Your task to perform on an android device: find which apps use the phone's location Image 0: 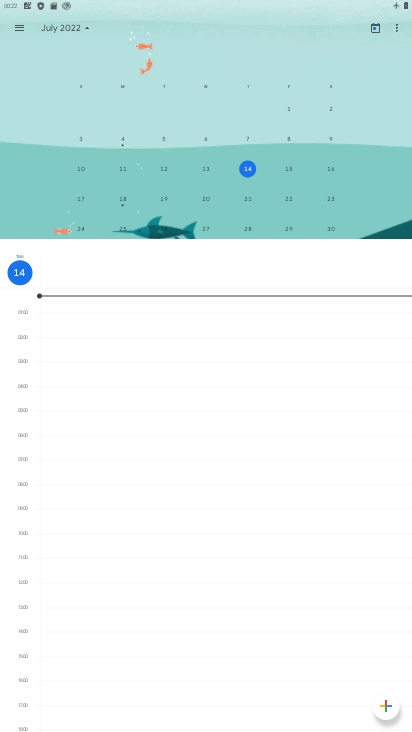
Step 0: press home button
Your task to perform on an android device: find which apps use the phone's location Image 1: 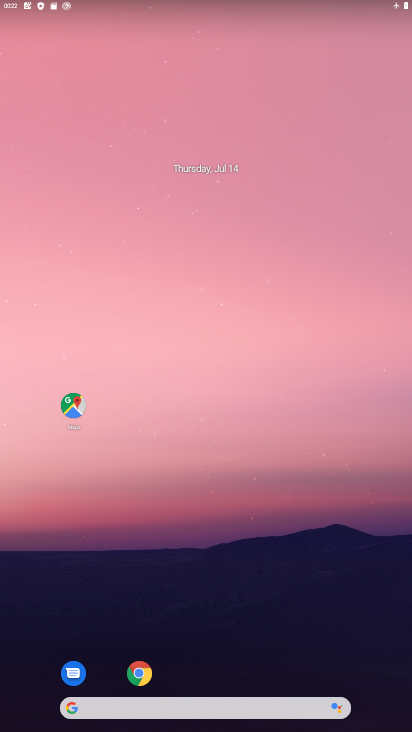
Step 1: drag from (225, 666) to (194, 204)
Your task to perform on an android device: find which apps use the phone's location Image 2: 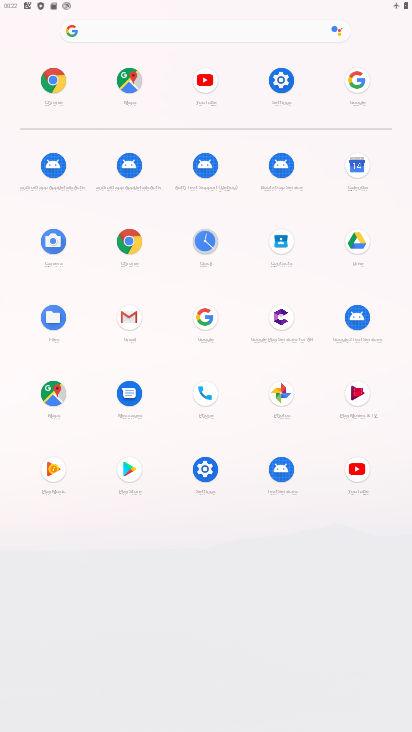
Step 2: click (270, 85)
Your task to perform on an android device: find which apps use the phone's location Image 3: 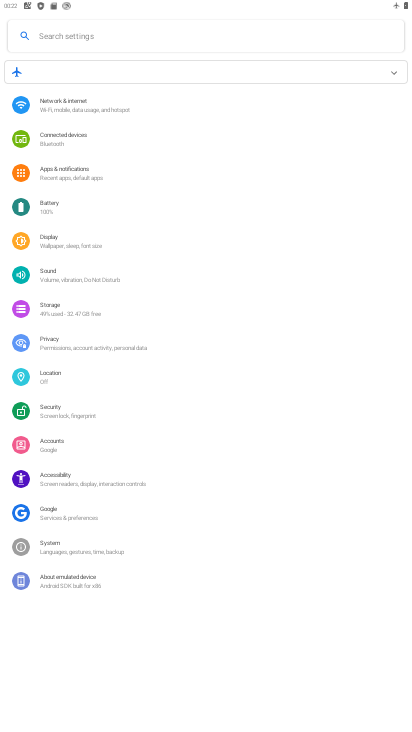
Step 3: click (60, 379)
Your task to perform on an android device: find which apps use the phone's location Image 4: 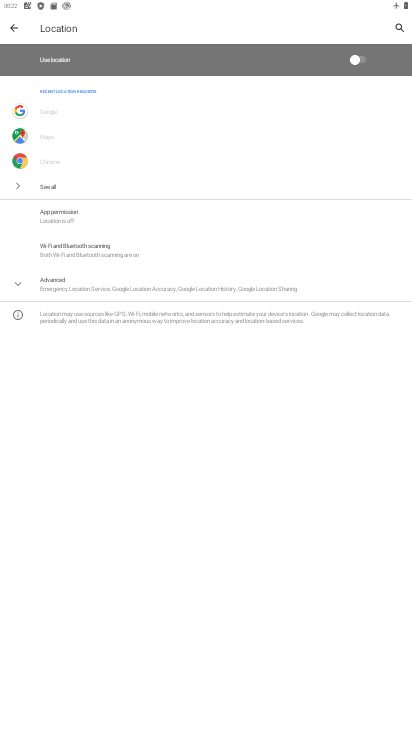
Step 4: click (61, 208)
Your task to perform on an android device: find which apps use the phone's location Image 5: 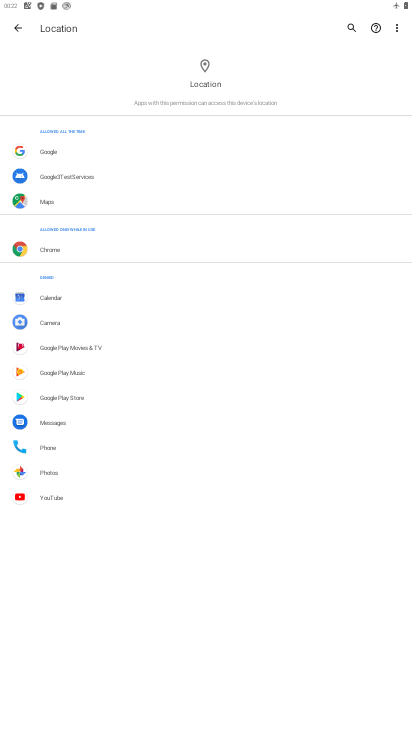
Step 5: task complete